Your task to perform on an android device: change the clock display to show seconds Image 0: 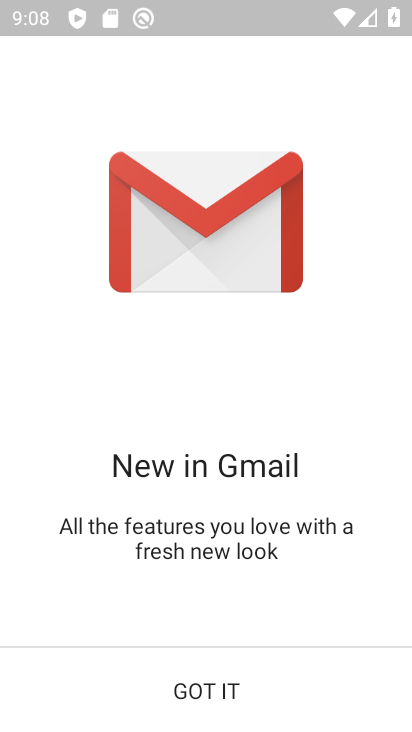
Step 0: press home button
Your task to perform on an android device: change the clock display to show seconds Image 1: 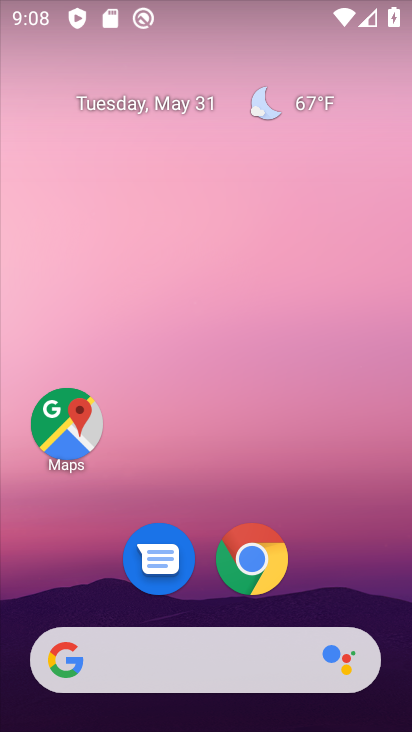
Step 1: drag from (326, 579) to (300, 102)
Your task to perform on an android device: change the clock display to show seconds Image 2: 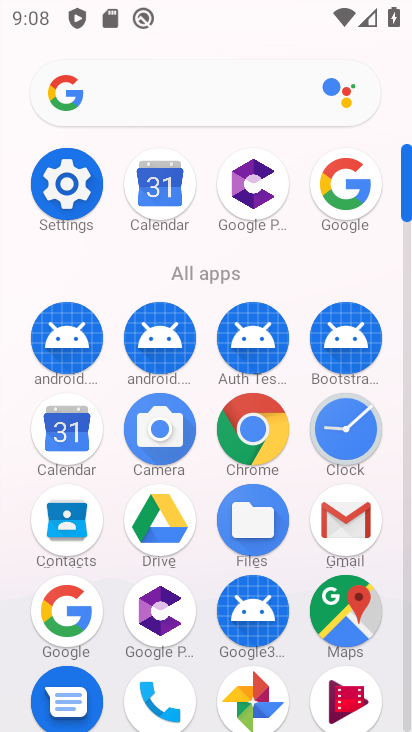
Step 2: click (341, 434)
Your task to perform on an android device: change the clock display to show seconds Image 3: 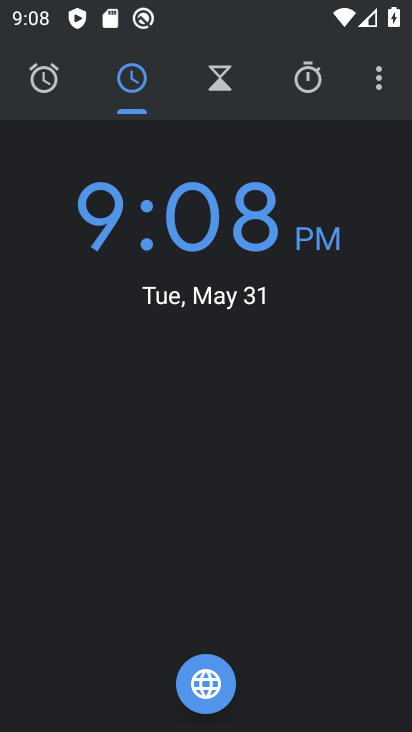
Step 3: click (373, 77)
Your task to perform on an android device: change the clock display to show seconds Image 4: 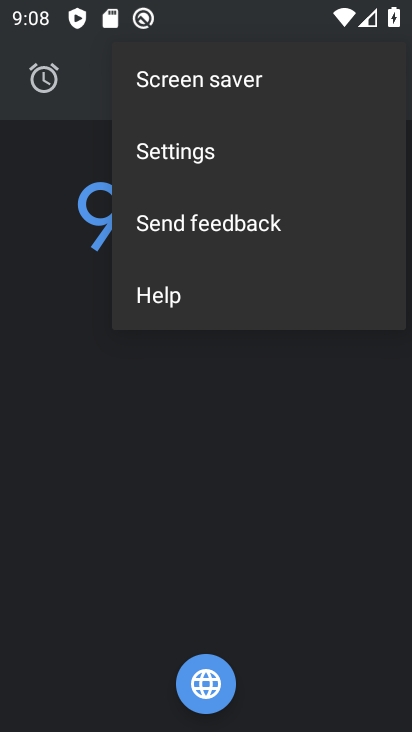
Step 4: click (206, 142)
Your task to perform on an android device: change the clock display to show seconds Image 5: 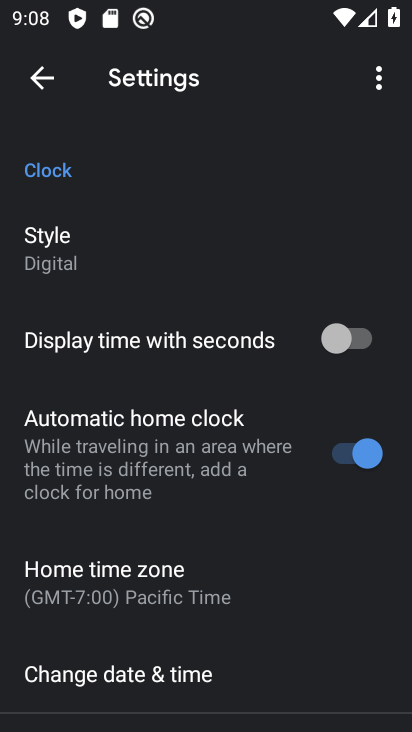
Step 5: click (332, 352)
Your task to perform on an android device: change the clock display to show seconds Image 6: 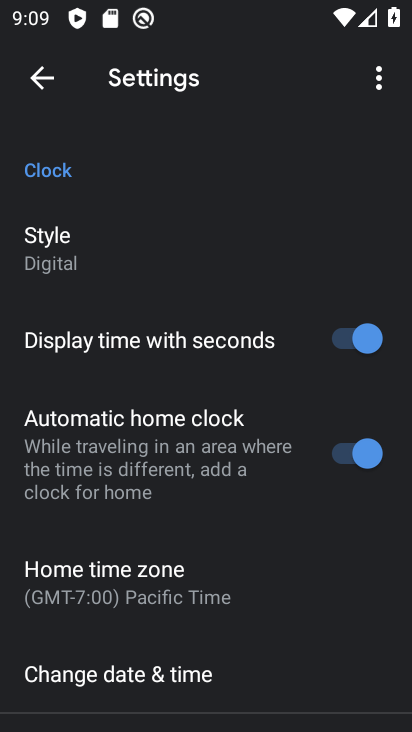
Step 6: task complete